Your task to perform on an android device: toggle priority inbox in the gmail app Image 0: 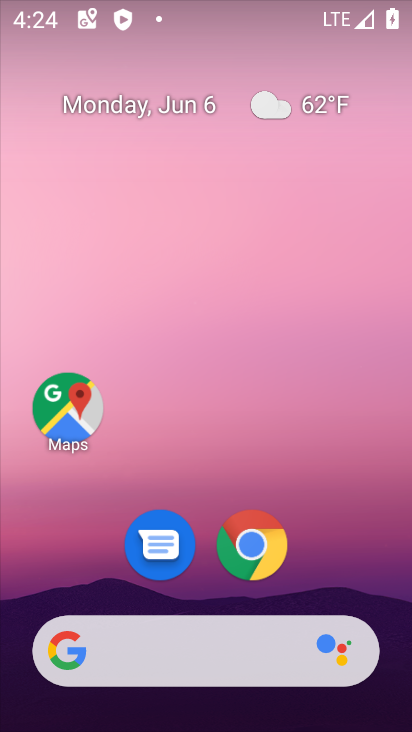
Step 0: drag from (227, 727) to (234, 9)
Your task to perform on an android device: toggle priority inbox in the gmail app Image 1: 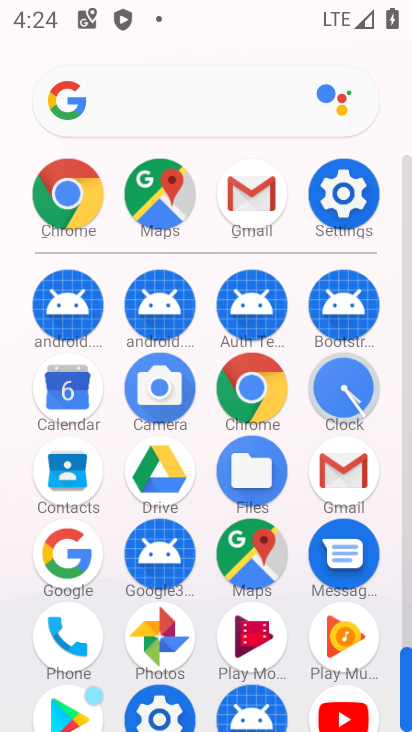
Step 1: click (339, 469)
Your task to perform on an android device: toggle priority inbox in the gmail app Image 2: 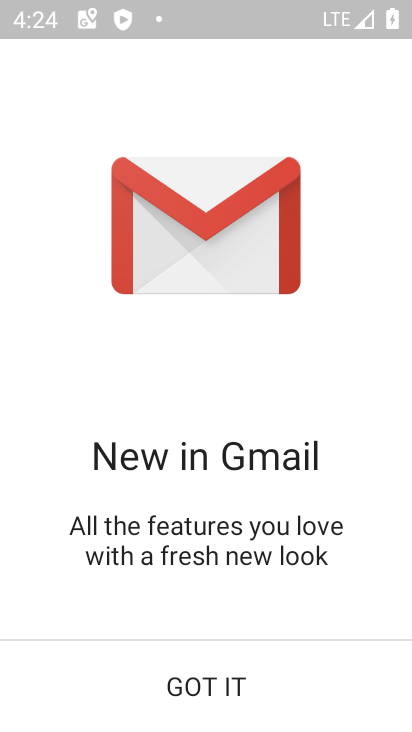
Step 2: click (194, 680)
Your task to perform on an android device: toggle priority inbox in the gmail app Image 3: 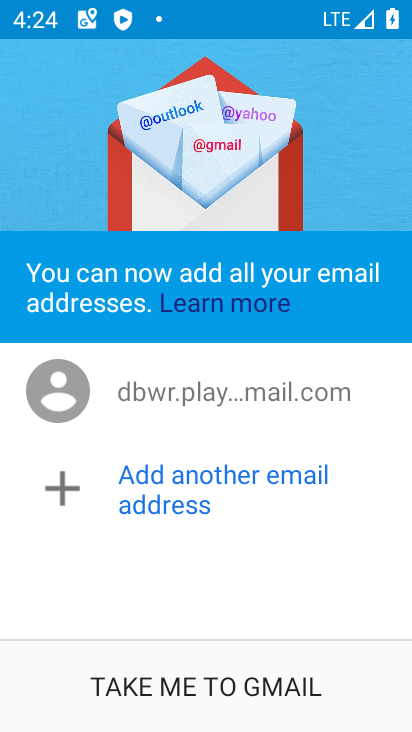
Step 3: click (224, 687)
Your task to perform on an android device: toggle priority inbox in the gmail app Image 4: 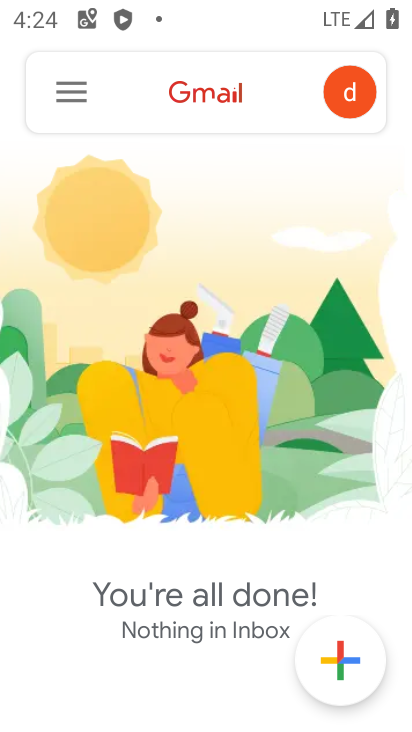
Step 4: click (68, 84)
Your task to perform on an android device: toggle priority inbox in the gmail app Image 5: 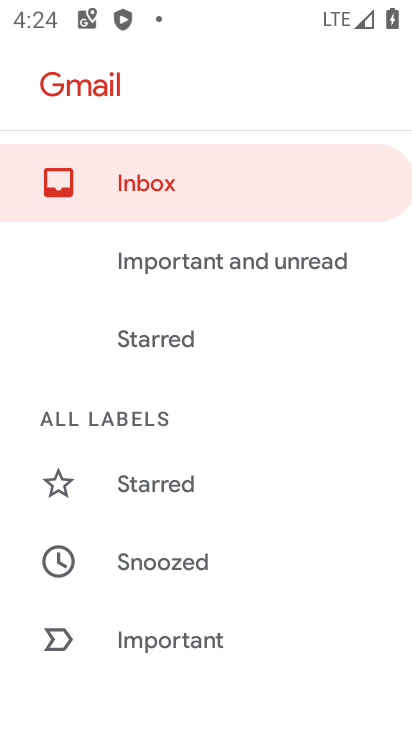
Step 5: drag from (217, 680) to (193, 253)
Your task to perform on an android device: toggle priority inbox in the gmail app Image 6: 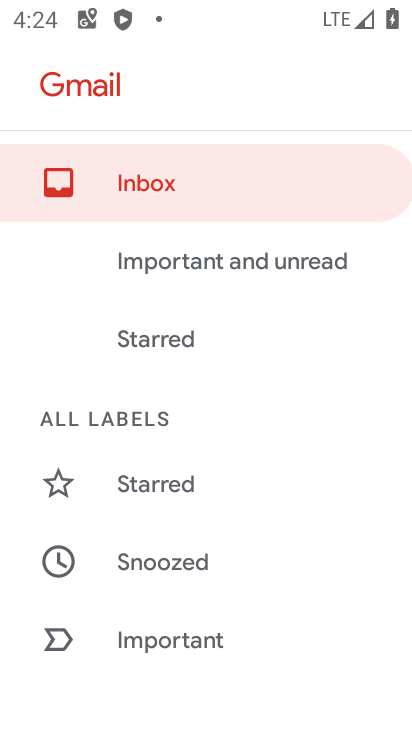
Step 6: drag from (181, 668) to (174, 207)
Your task to perform on an android device: toggle priority inbox in the gmail app Image 7: 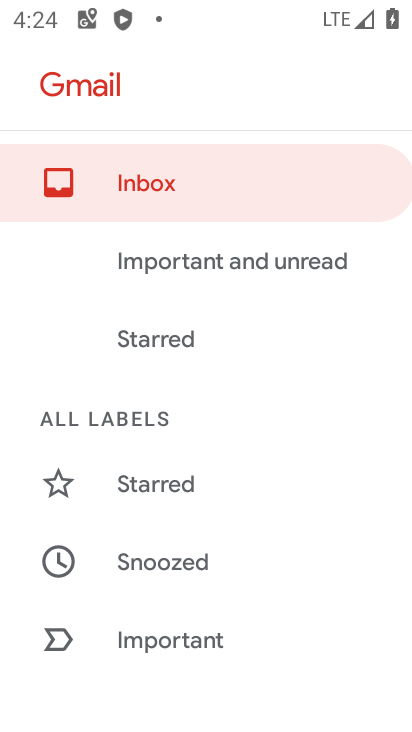
Step 7: drag from (156, 603) to (160, 253)
Your task to perform on an android device: toggle priority inbox in the gmail app Image 8: 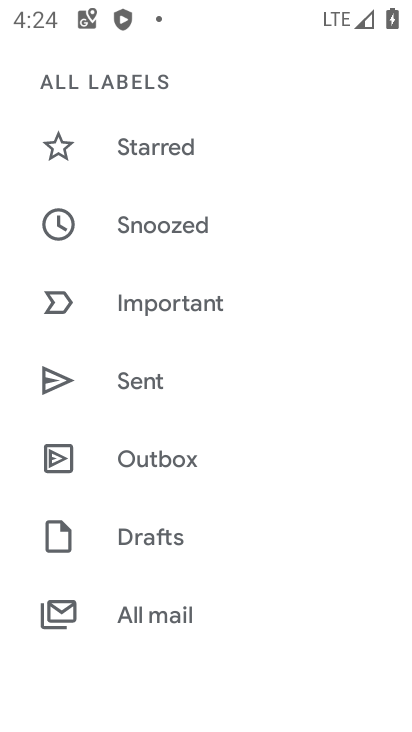
Step 8: drag from (179, 476) to (179, 165)
Your task to perform on an android device: toggle priority inbox in the gmail app Image 9: 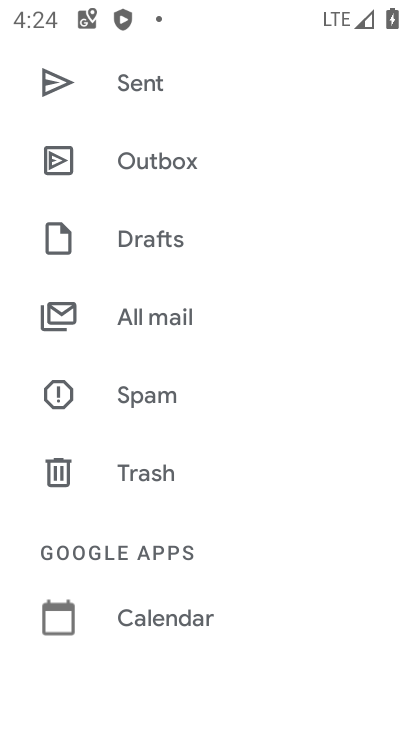
Step 9: drag from (175, 642) to (179, 199)
Your task to perform on an android device: toggle priority inbox in the gmail app Image 10: 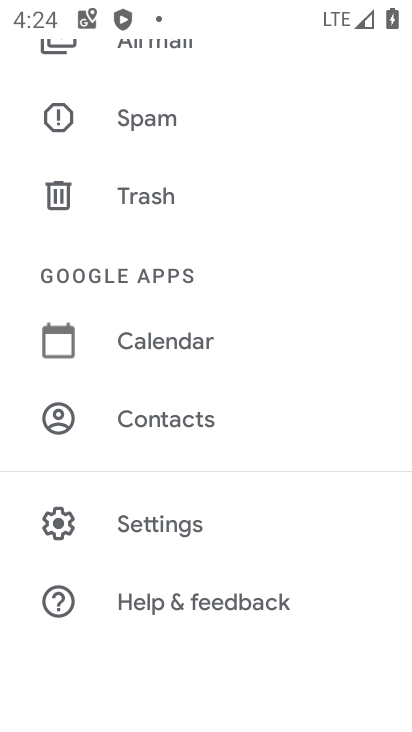
Step 10: click (170, 527)
Your task to perform on an android device: toggle priority inbox in the gmail app Image 11: 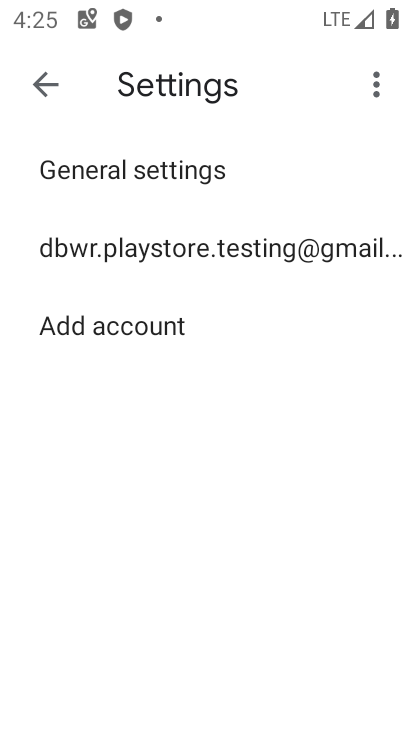
Step 11: click (175, 237)
Your task to perform on an android device: toggle priority inbox in the gmail app Image 12: 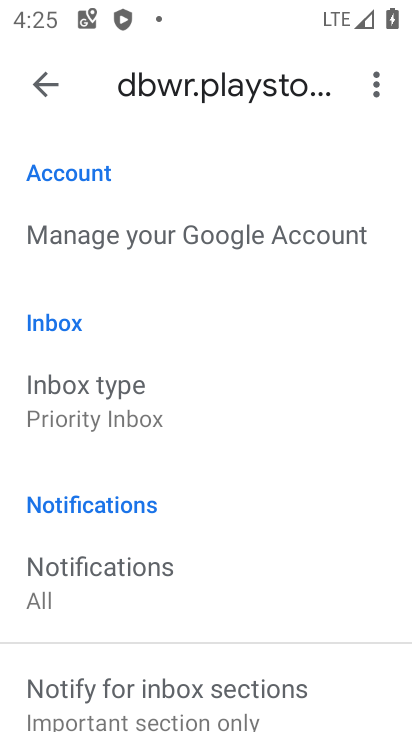
Step 12: click (112, 402)
Your task to perform on an android device: toggle priority inbox in the gmail app Image 13: 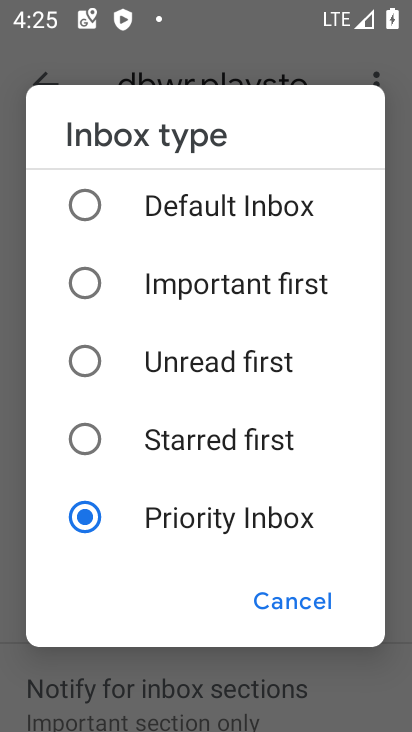
Step 13: click (87, 203)
Your task to perform on an android device: toggle priority inbox in the gmail app Image 14: 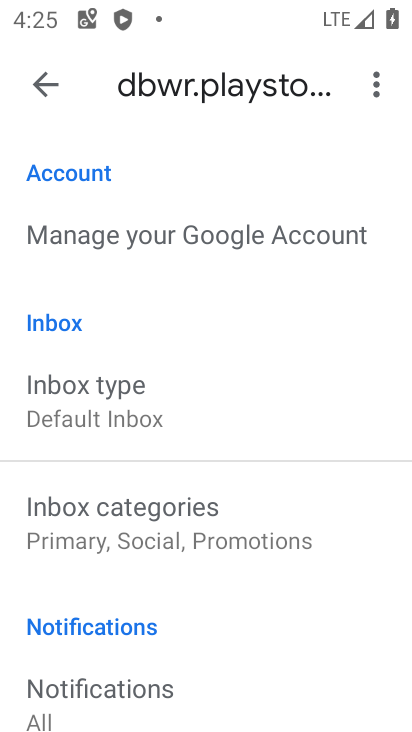
Step 14: task complete